Your task to perform on an android device: Go to Yahoo.com Image 0: 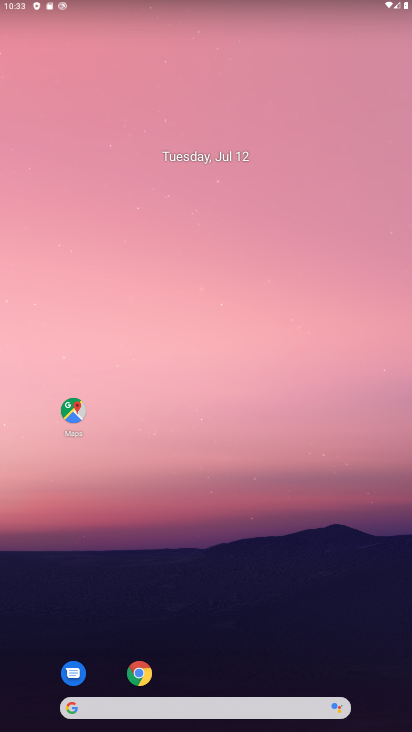
Step 0: click (193, 705)
Your task to perform on an android device: Go to Yahoo.com Image 1: 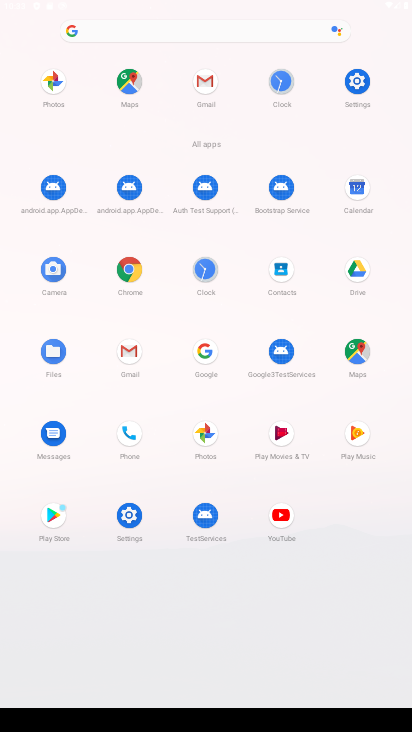
Step 1: click (121, 281)
Your task to perform on an android device: Go to Yahoo.com Image 2: 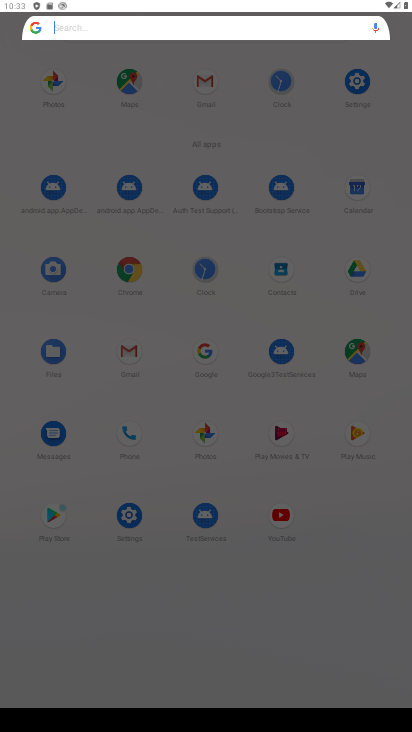
Step 2: click (133, 269)
Your task to perform on an android device: Go to Yahoo.com Image 3: 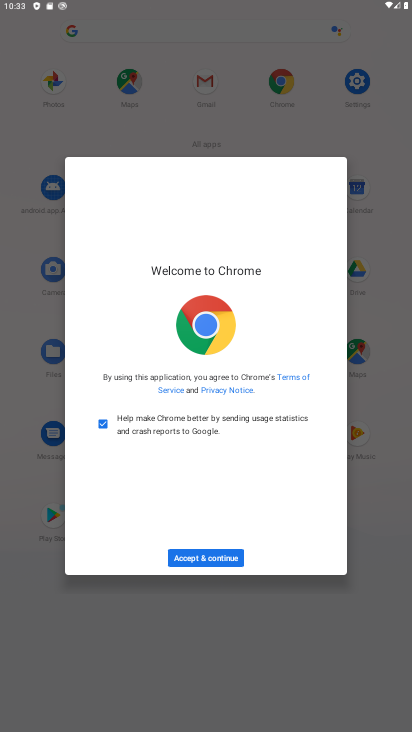
Step 3: click (187, 557)
Your task to perform on an android device: Go to Yahoo.com Image 4: 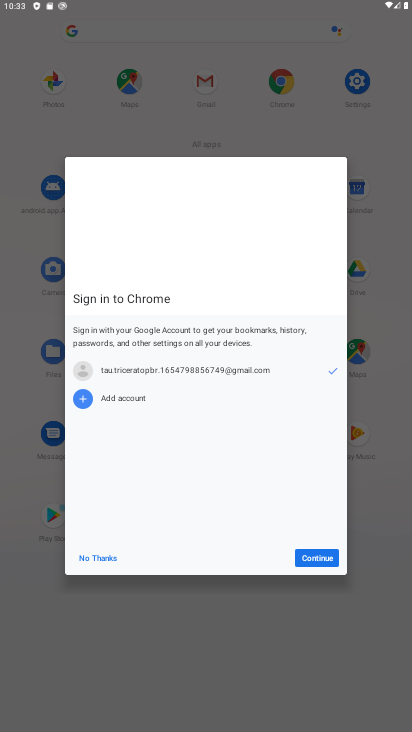
Step 4: click (319, 561)
Your task to perform on an android device: Go to Yahoo.com Image 5: 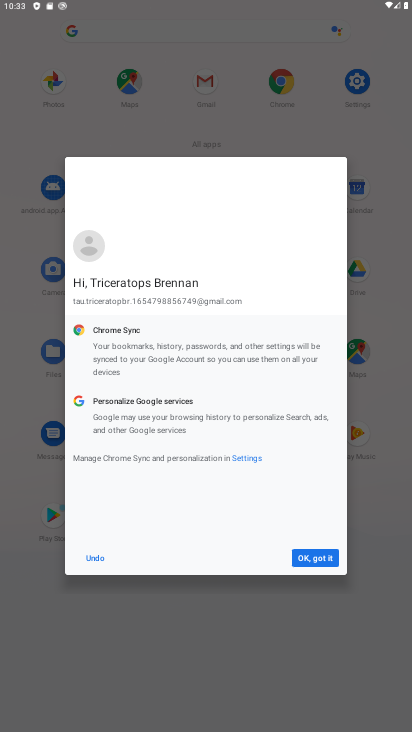
Step 5: click (319, 561)
Your task to perform on an android device: Go to Yahoo.com Image 6: 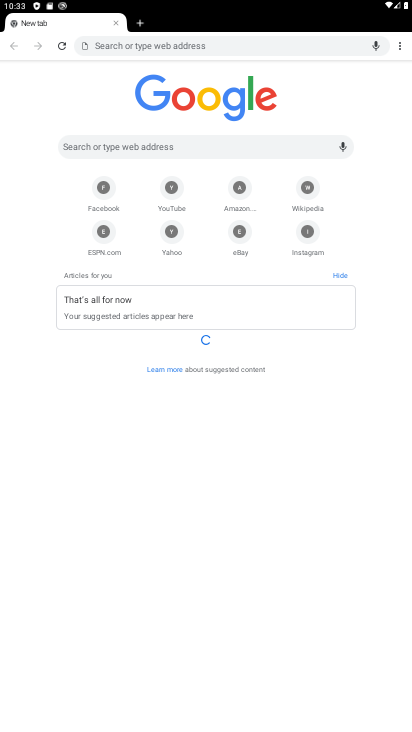
Step 6: click (166, 226)
Your task to perform on an android device: Go to Yahoo.com Image 7: 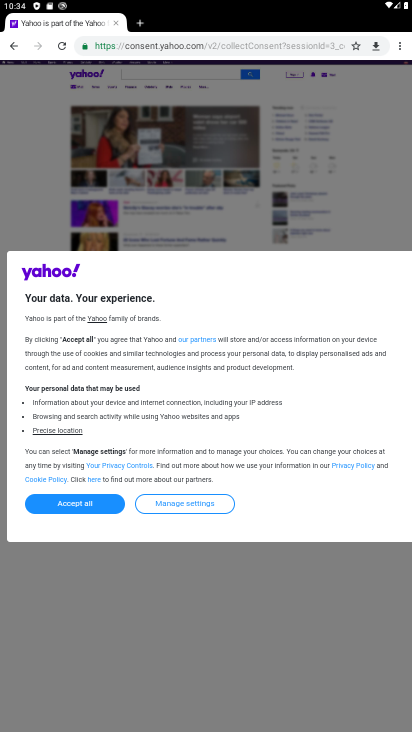
Step 7: click (83, 507)
Your task to perform on an android device: Go to Yahoo.com Image 8: 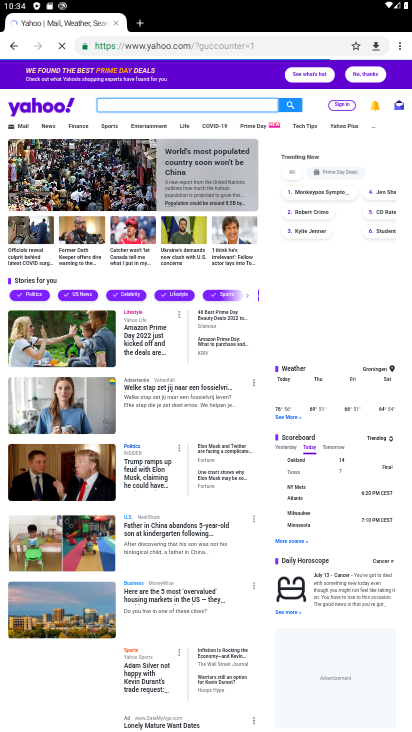
Step 8: task complete